Your task to perform on an android device: Open the Play Movies app and select the watchlist tab. Image 0: 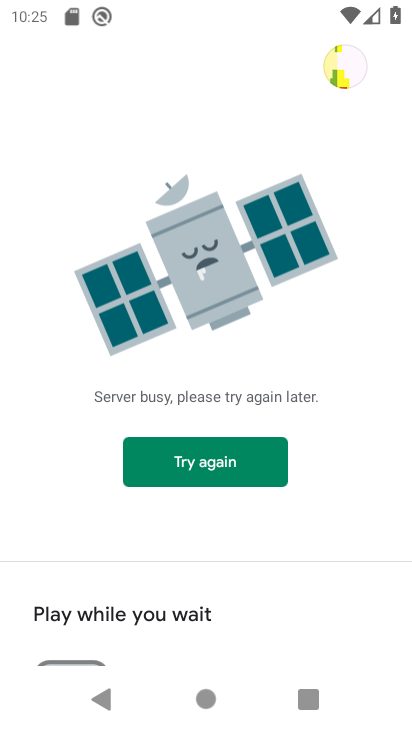
Step 0: press home button
Your task to perform on an android device: Open the Play Movies app and select the watchlist tab. Image 1: 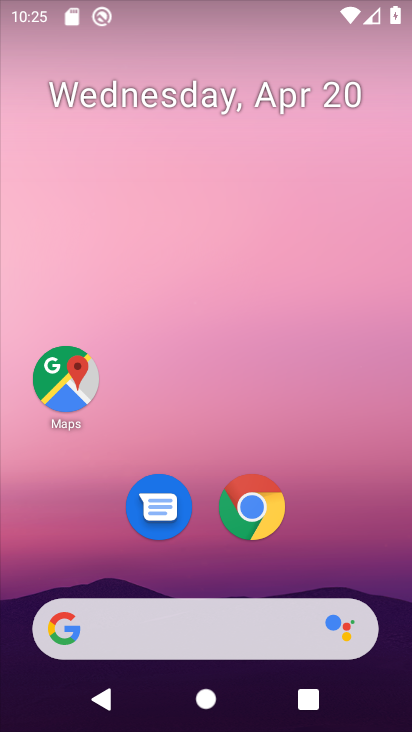
Step 1: drag from (204, 576) to (229, 1)
Your task to perform on an android device: Open the Play Movies app and select the watchlist tab. Image 2: 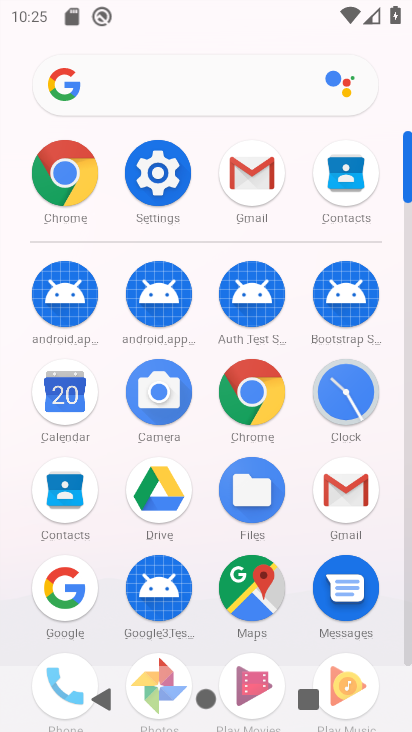
Step 2: drag from (211, 629) to (221, 324)
Your task to perform on an android device: Open the Play Movies app and select the watchlist tab. Image 3: 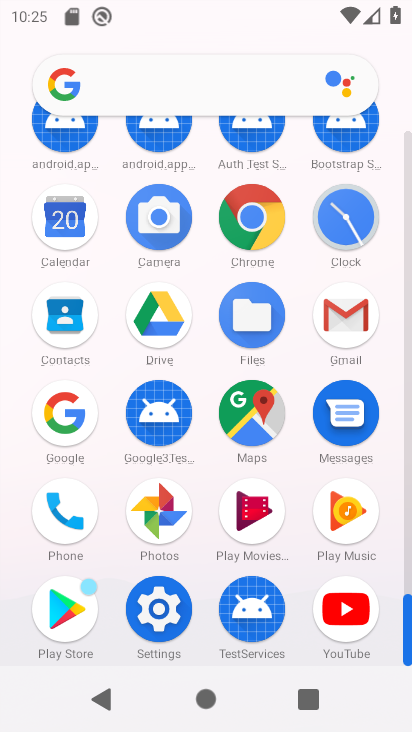
Step 3: click (254, 514)
Your task to perform on an android device: Open the Play Movies app and select the watchlist tab. Image 4: 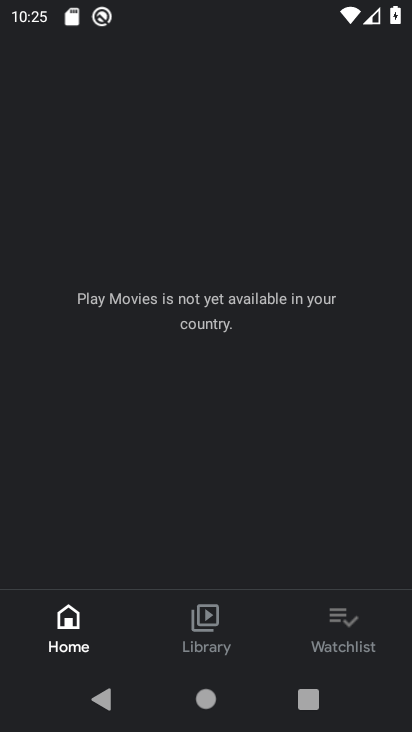
Step 4: click (365, 630)
Your task to perform on an android device: Open the Play Movies app and select the watchlist tab. Image 5: 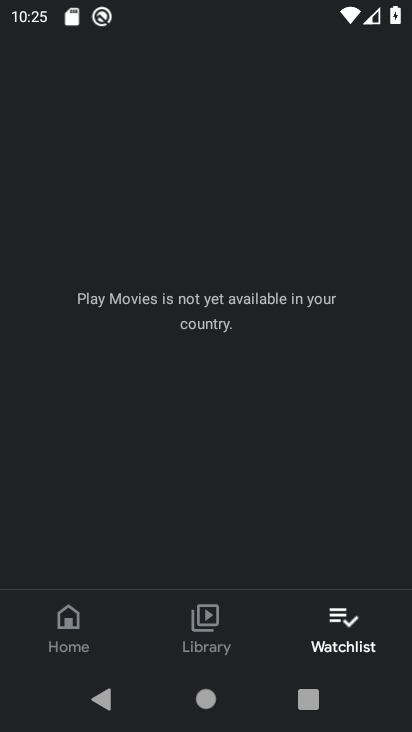
Step 5: task complete